Your task to perform on an android device: toggle pop-ups in chrome Image 0: 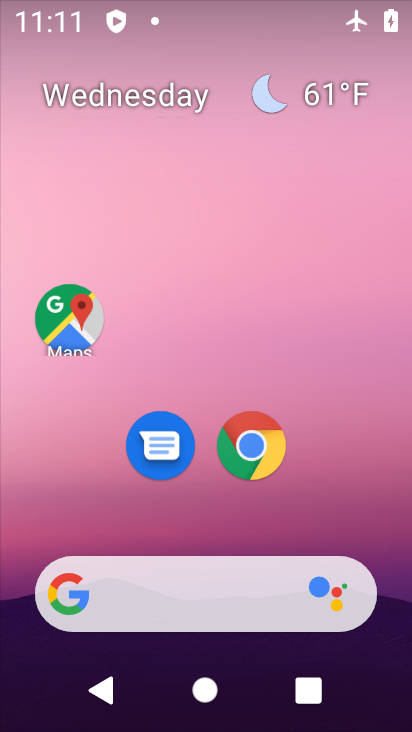
Step 0: drag from (342, 513) to (344, 118)
Your task to perform on an android device: toggle pop-ups in chrome Image 1: 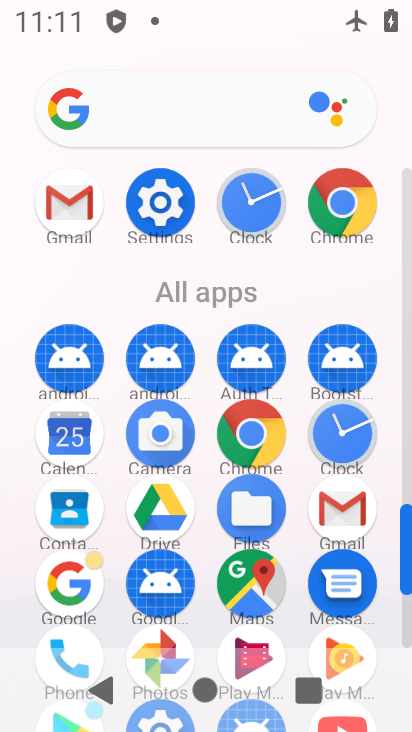
Step 1: click (340, 205)
Your task to perform on an android device: toggle pop-ups in chrome Image 2: 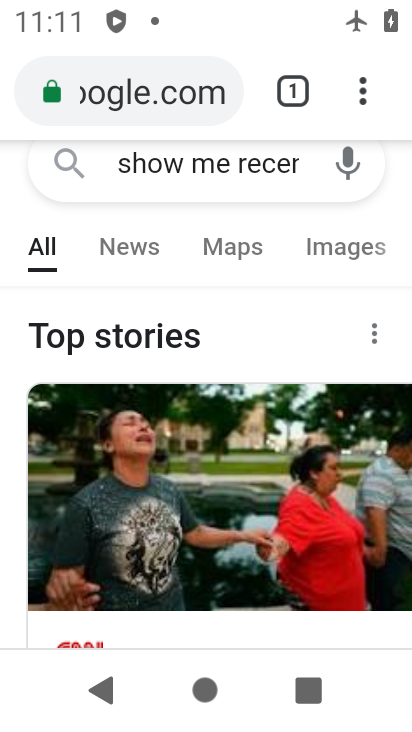
Step 2: click (364, 94)
Your task to perform on an android device: toggle pop-ups in chrome Image 3: 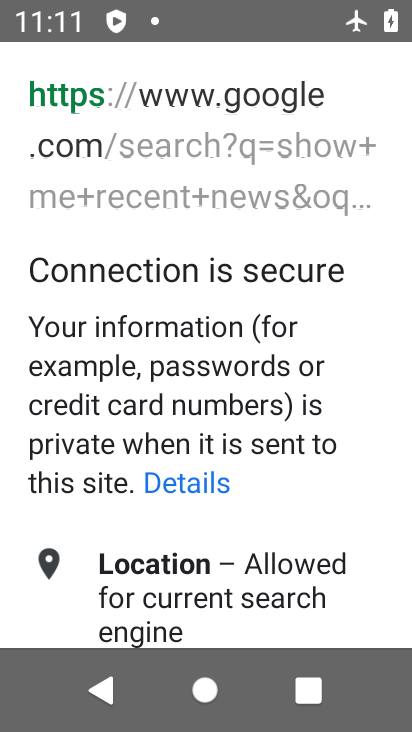
Step 3: press back button
Your task to perform on an android device: toggle pop-ups in chrome Image 4: 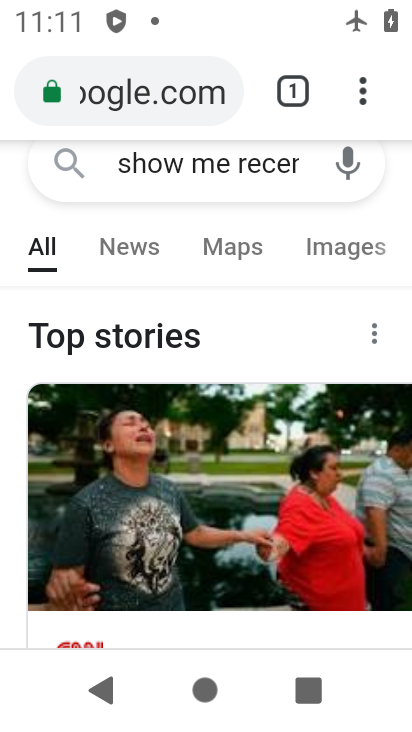
Step 4: drag from (366, 95) to (86, 488)
Your task to perform on an android device: toggle pop-ups in chrome Image 5: 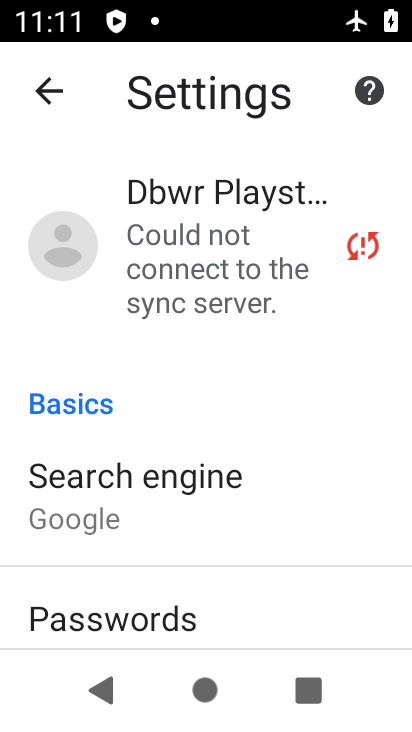
Step 5: drag from (211, 597) to (258, 234)
Your task to perform on an android device: toggle pop-ups in chrome Image 6: 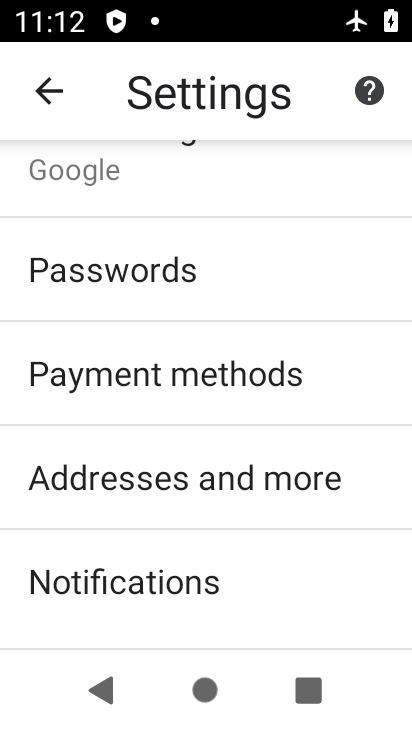
Step 6: drag from (280, 575) to (276, 301)
Your task to perform on an android device: toggle pop-ups in chrome Image 7: 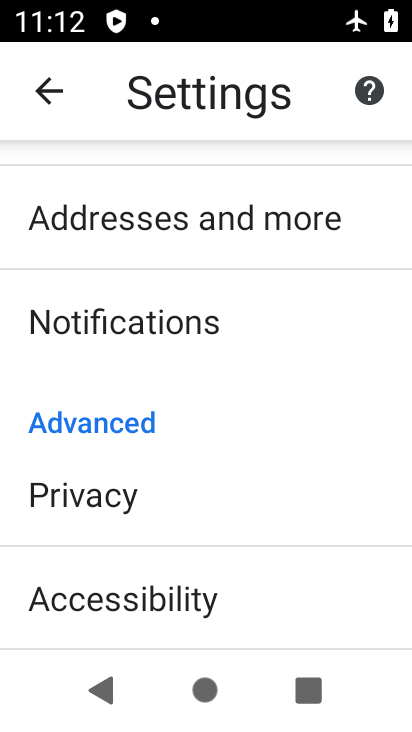
Step 7: drag from (219, 551) to (222, 265)
Your task to perform on an android device: toggle pop-ups in chrome Image 8: 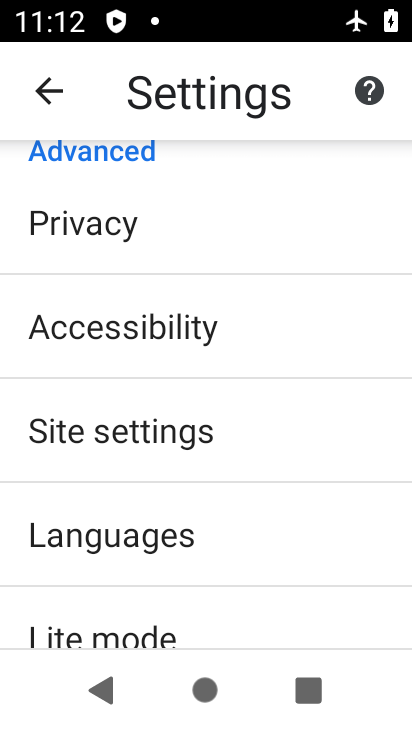
Step 8: click (217, 425)
Your task to perform on an android device: toggle pop-ups in chrome Image 9: 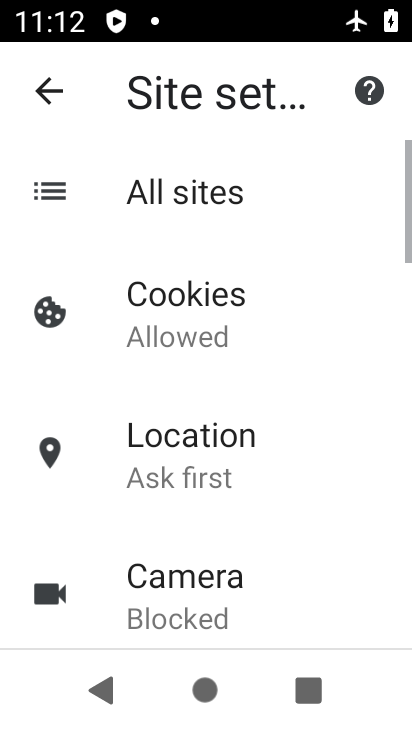
Step 9: drag from (291, 551) to (285, 268)
Your task to perform on an android device: toggle pop-ups in chrome Image 10: 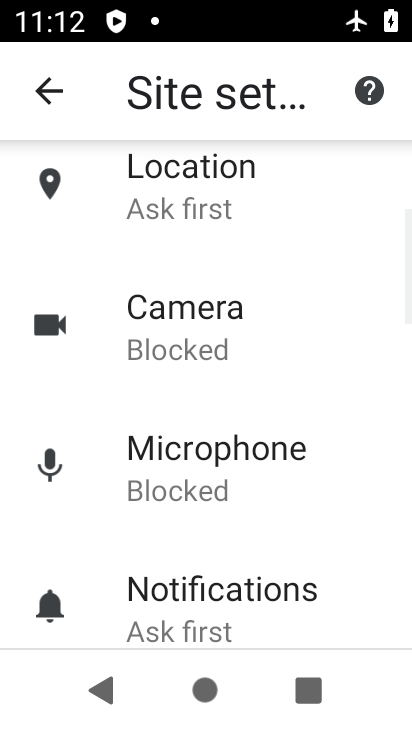
Step 10: drag from (291, 582) to (288, 329)
Your task to perform on an android device: toggle pop-ups in chrome Image 11: 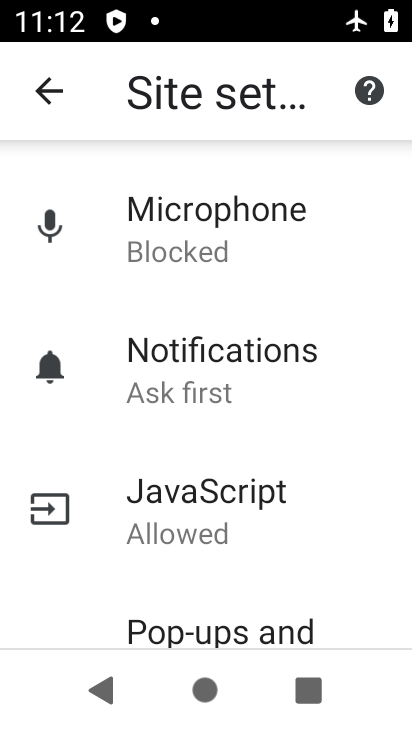
Step 11: drag from (275, 535) to (271, 344)
Your task to perform on an android device: toggle pop-ups in chrome Image 12: 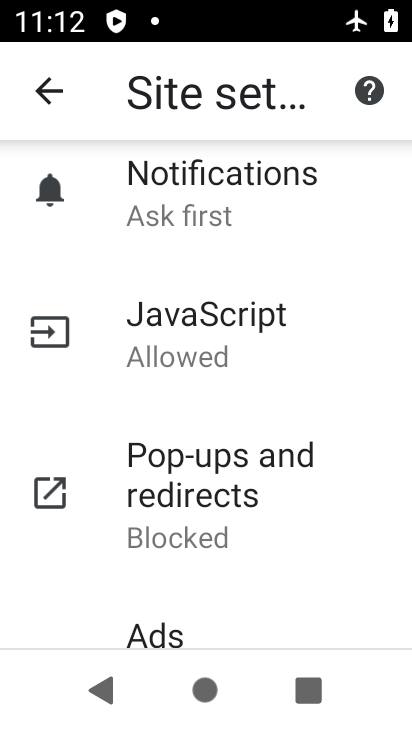
Step 12: click (245, 467)
Your task to perform on an android device: toggle pop-ups in chrome Image 13: 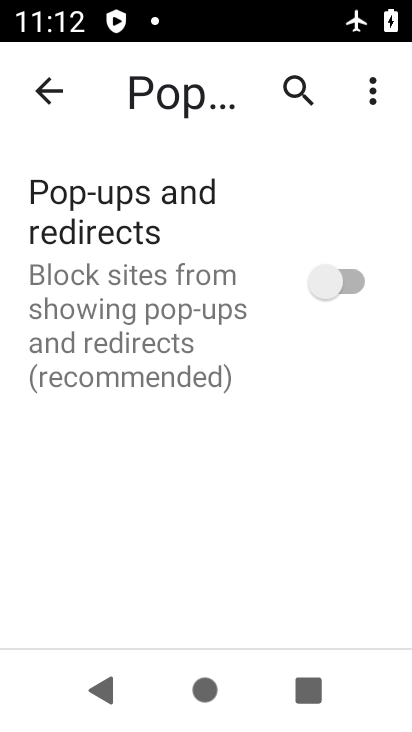
Step 13: click (355, 281)
Your task to perform on an android device: toggle pop-ups in chrome Image 14: 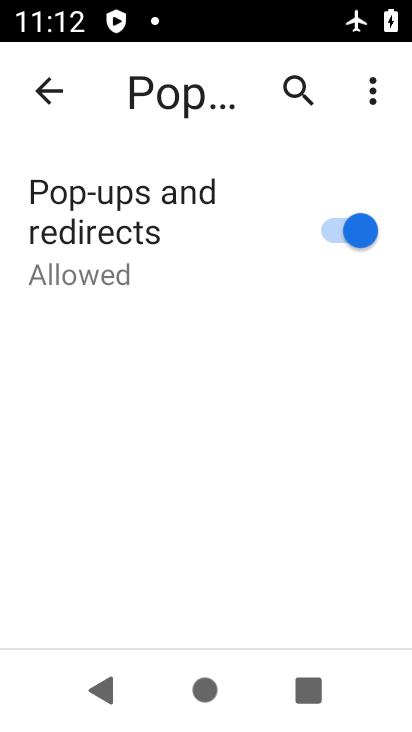
Step 14: task complete